Your task to perform on an android device: change keyboard looks Image 0: 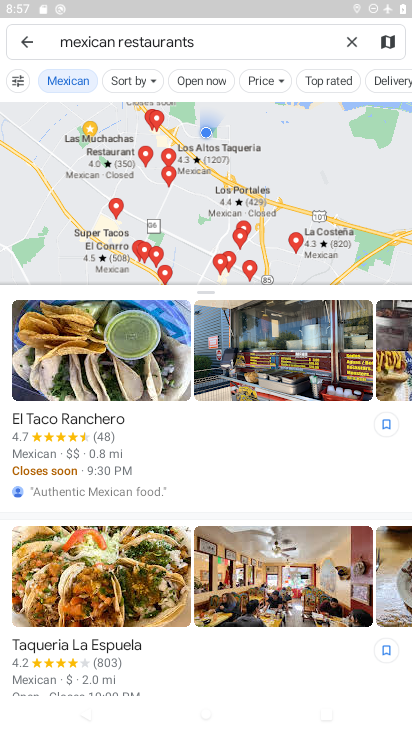
Step 0: press home button
Your task to perform on an android device: change keyboard looks Image 1: 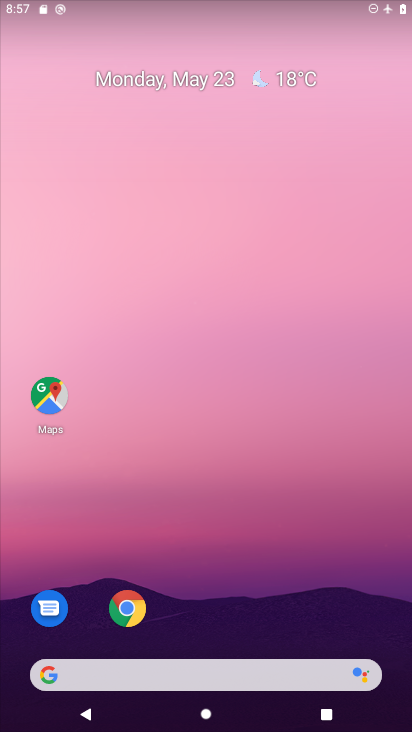
Step 1: drag from (230, 724) to (228, 53)
Your task to perform on an android device: change keyboard looks Image 2: 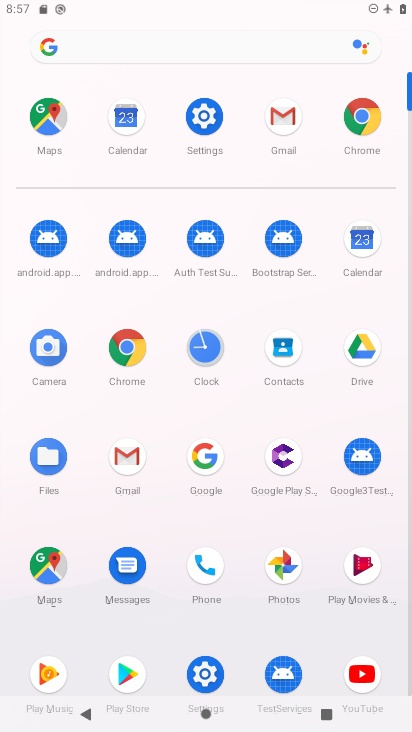
Step 2: click (212, 121)
Your task to perform on an android device: change keyboard looks Image 3: 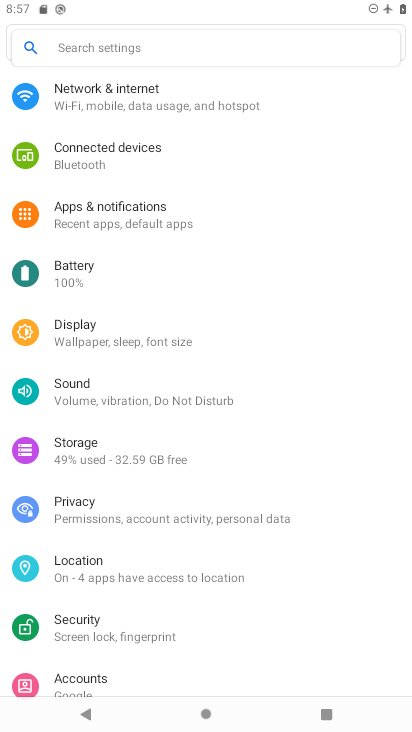
Step 3: drag from (197, 663) to (198, 276)
Your task to perform on an android device: change keyboard looks Image 4: 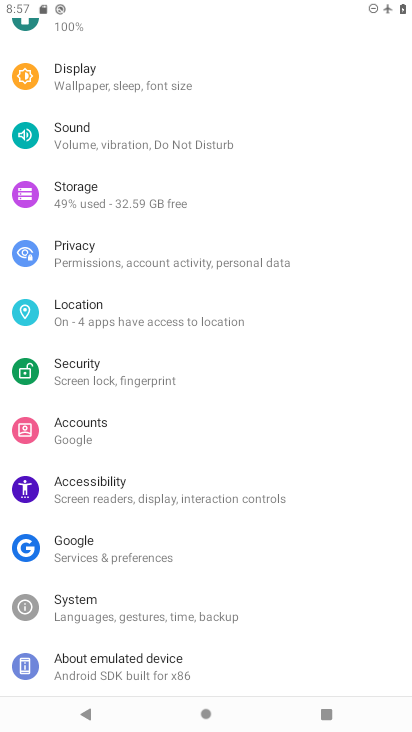
Step 4: click (141, 616)
Your task to perform on an android device: change keyboard looks Image 5: 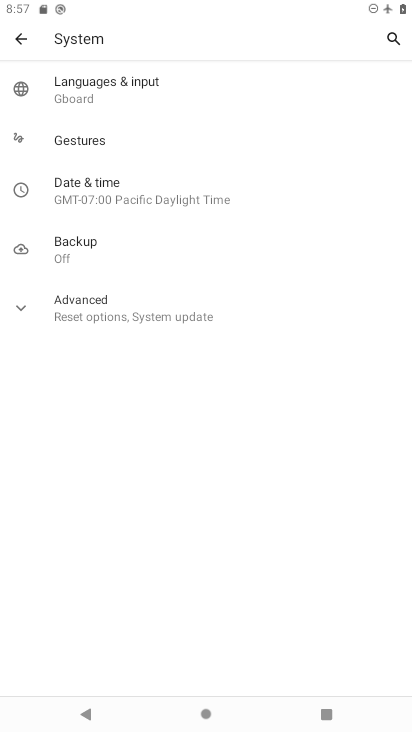
Step 5: click (90, 89)
Your task to perform on an android device: change keyboard looks Image 6: 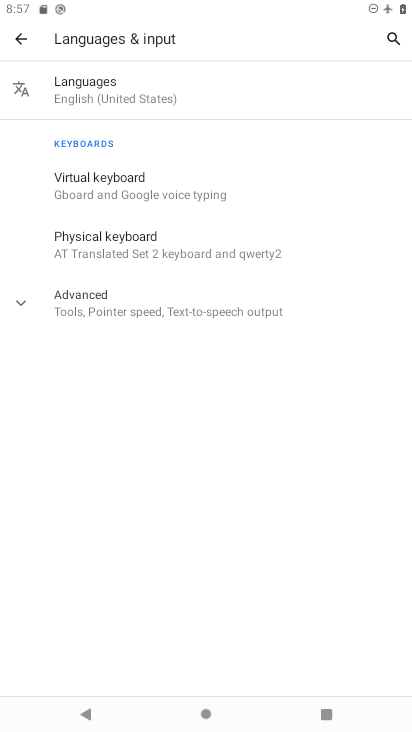
Step 6: click (112, 190)
Your task to perform on an android device: change keyboard looks Image 7: 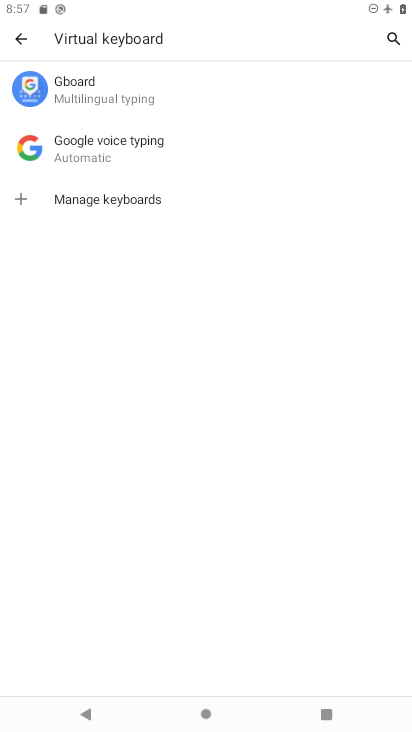
Step 7: click (128, 91)
Your task to perform on an android device: change keyboard looks Image 8: 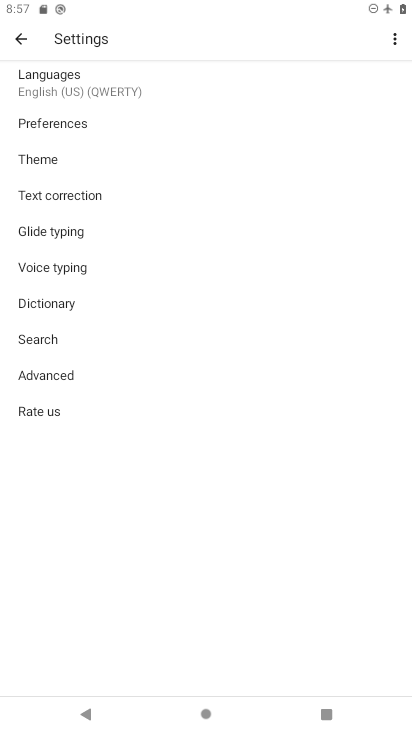
Step 8: click (41, 157)
Your task to perform on an android device: change keyboard looks Image 9: 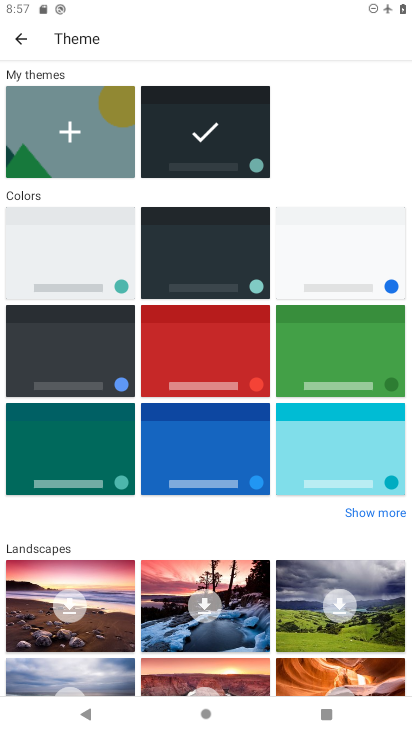
Step 9: click (199, 269)
Your task to perform on an android device: change keyboard looks Image 10: 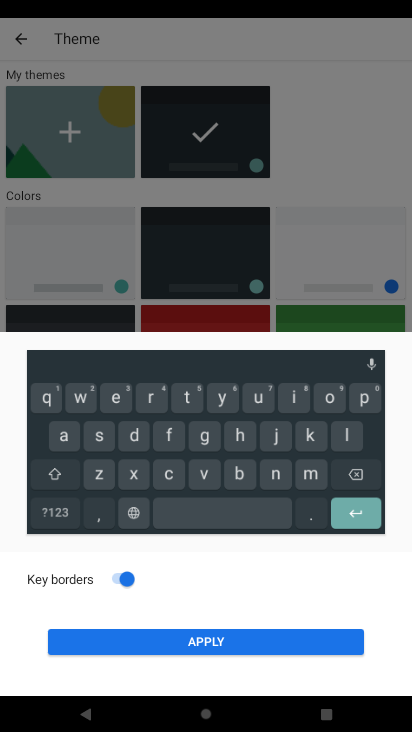
Step 10: click (201, 637)
Your task to perform on an android device: change keyboard looks Image 11: 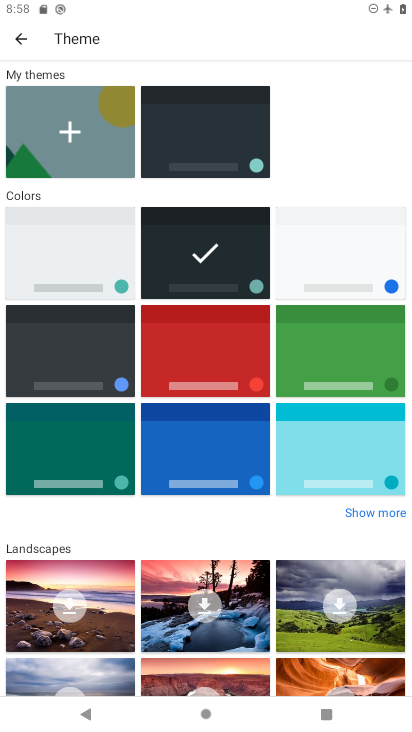
Step 11: task complete